Your task to perform on an android device: toggle translation in the chrome app Image 0: 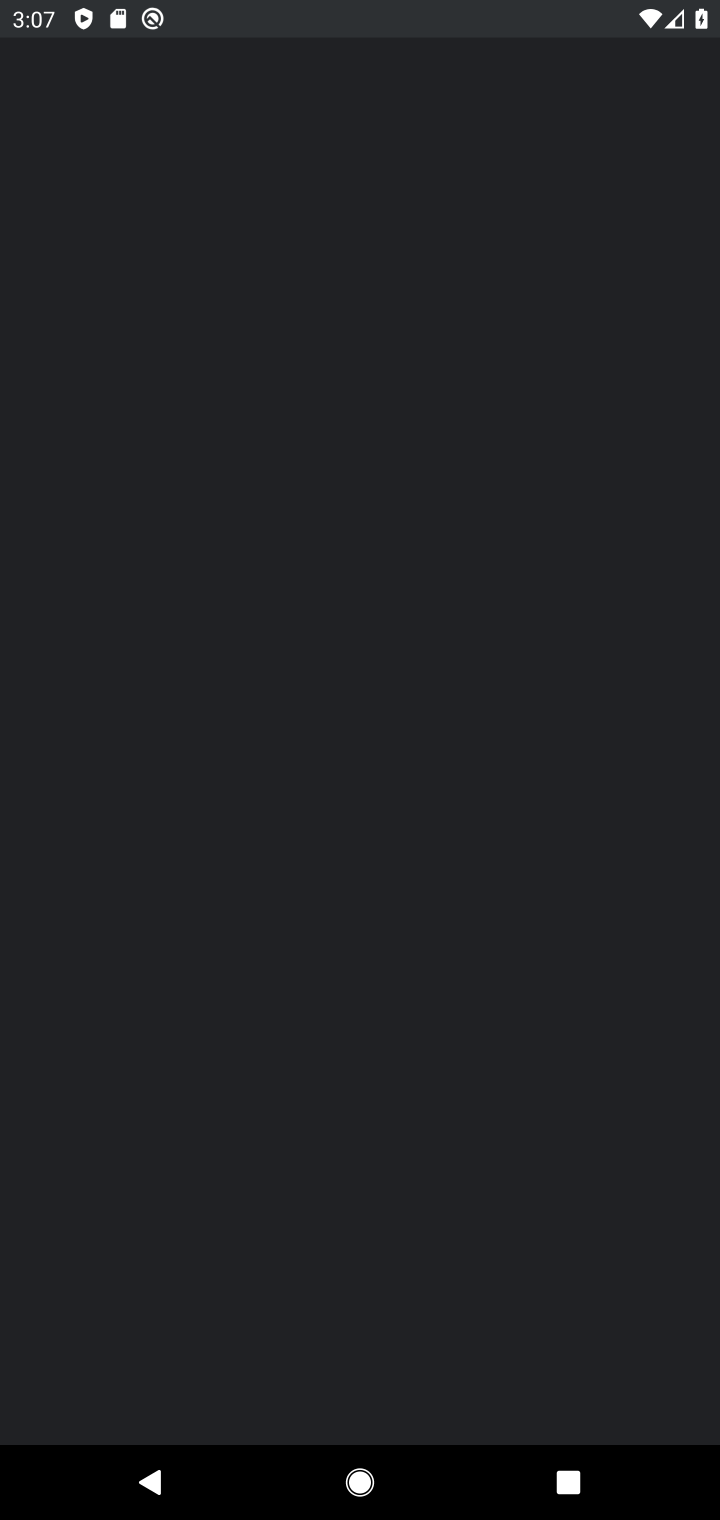
Step 0: press home button
Your task to perform on an android device: toggle translation in the chrome app Image 1: 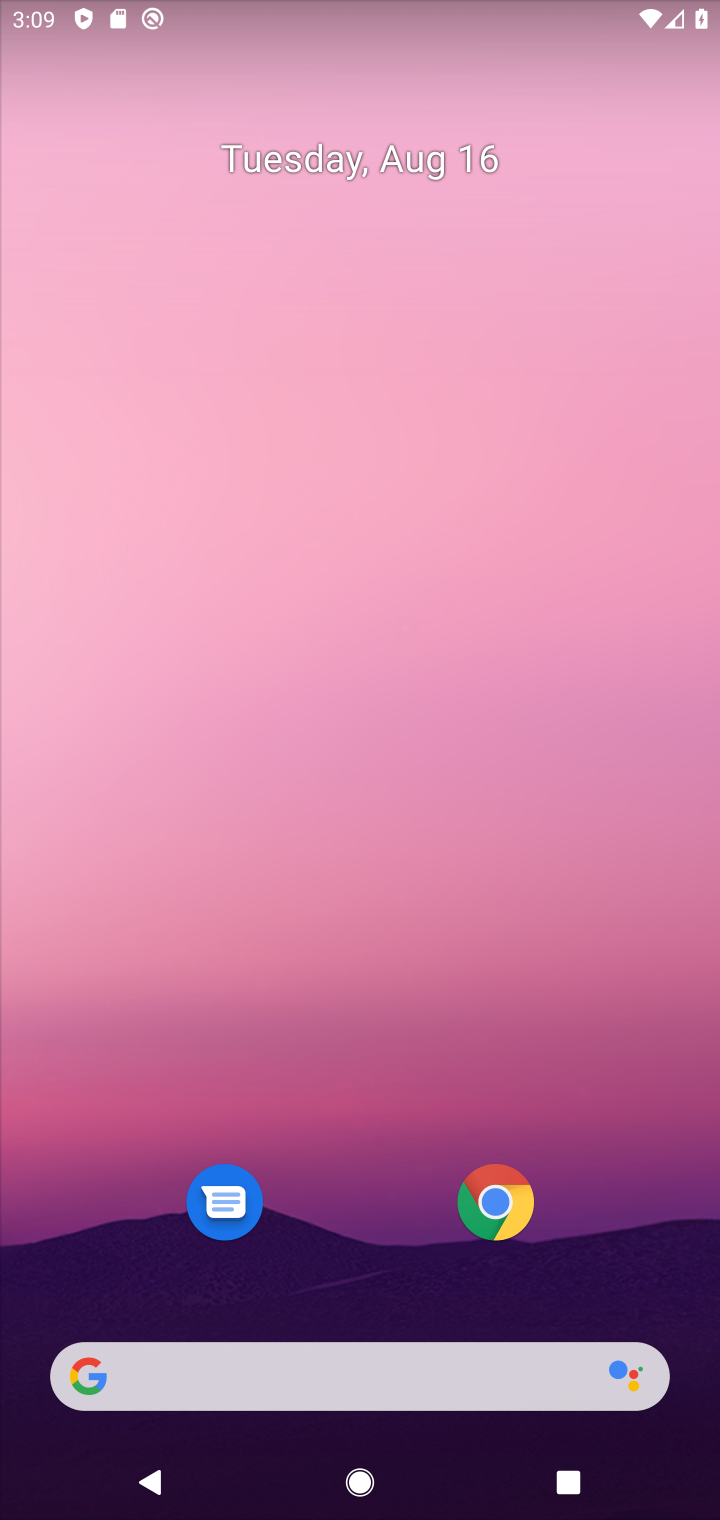
Step 1: drag from (414, 946) to (529, 147)
Your task to perform on an android device: toggle translation in the chrome app Image 2: 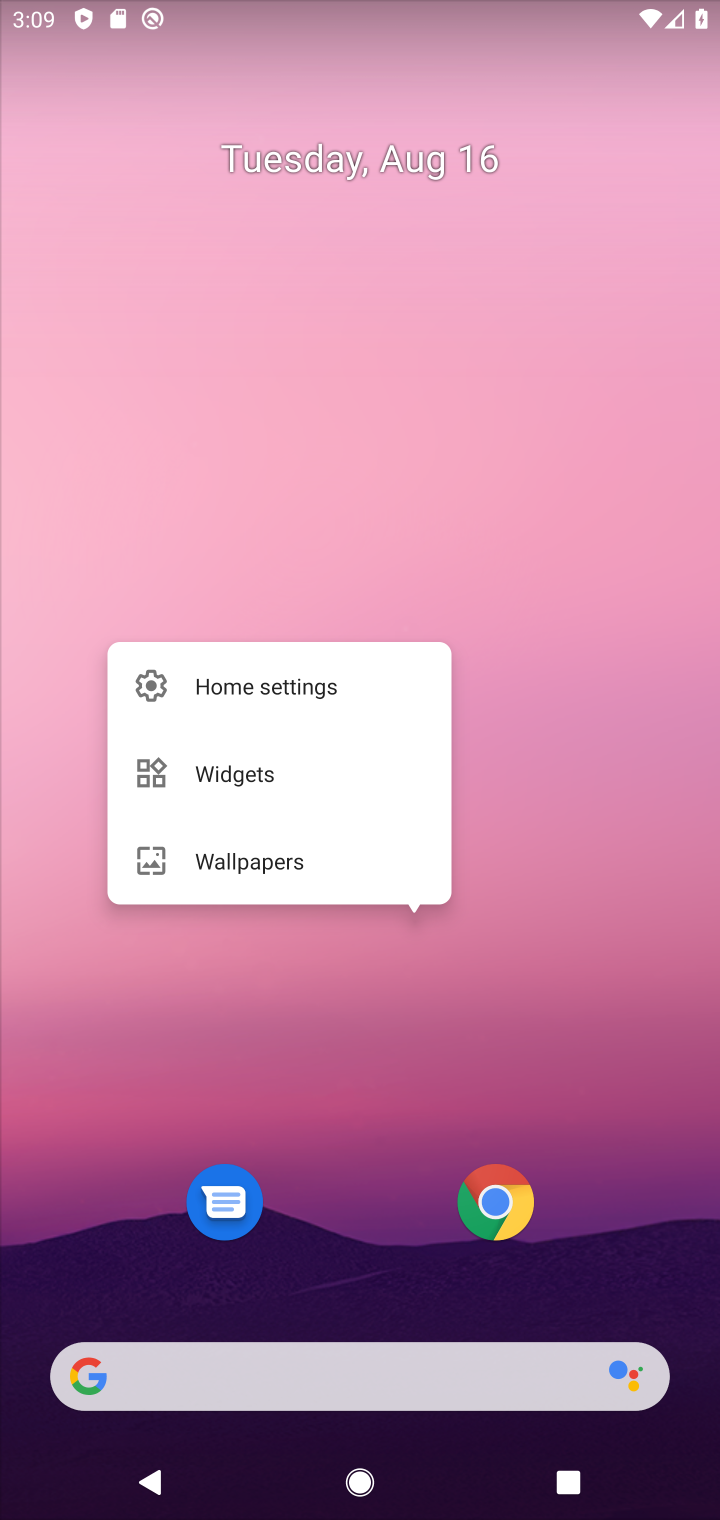
Step 2: click (509, 1061)
Your task to perform on an android device: toggle translation in the chrome app Image 3: 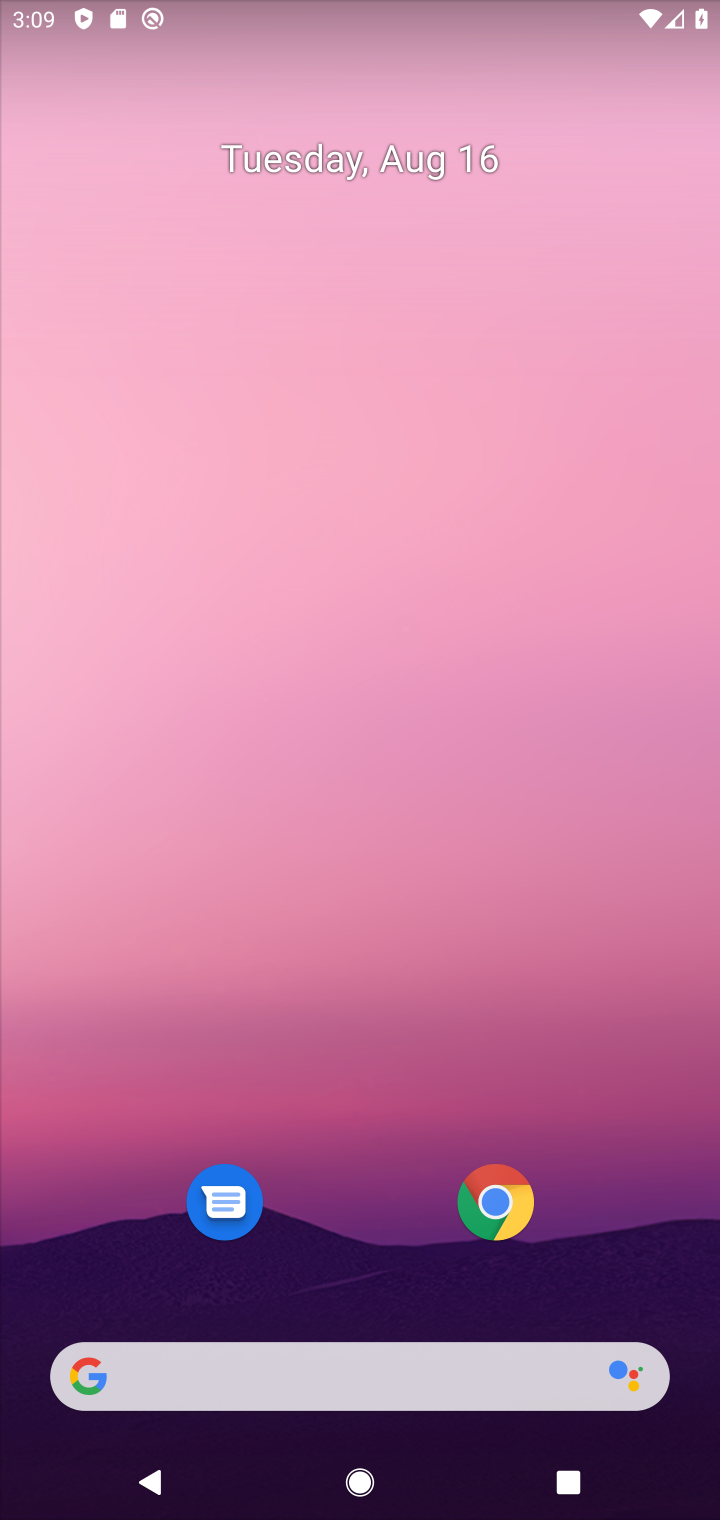
Step 3: drag from (375, 683) to (402, 2)
Your task to perform on an android device: toggle translation in the chrome app Image 4: 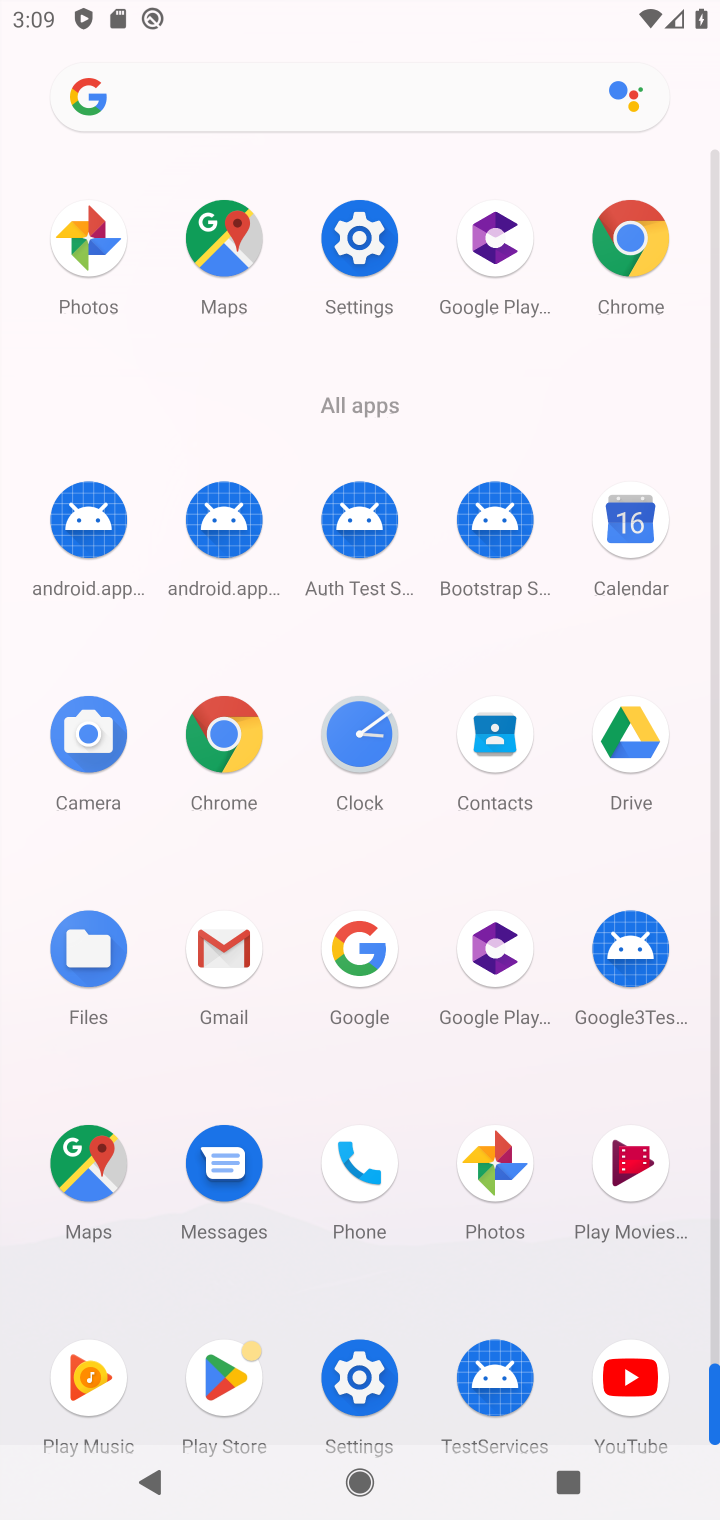
Step 4: click (223, 770)
Your task to perform on an android device: toggle translation in the chrome app Image 5: 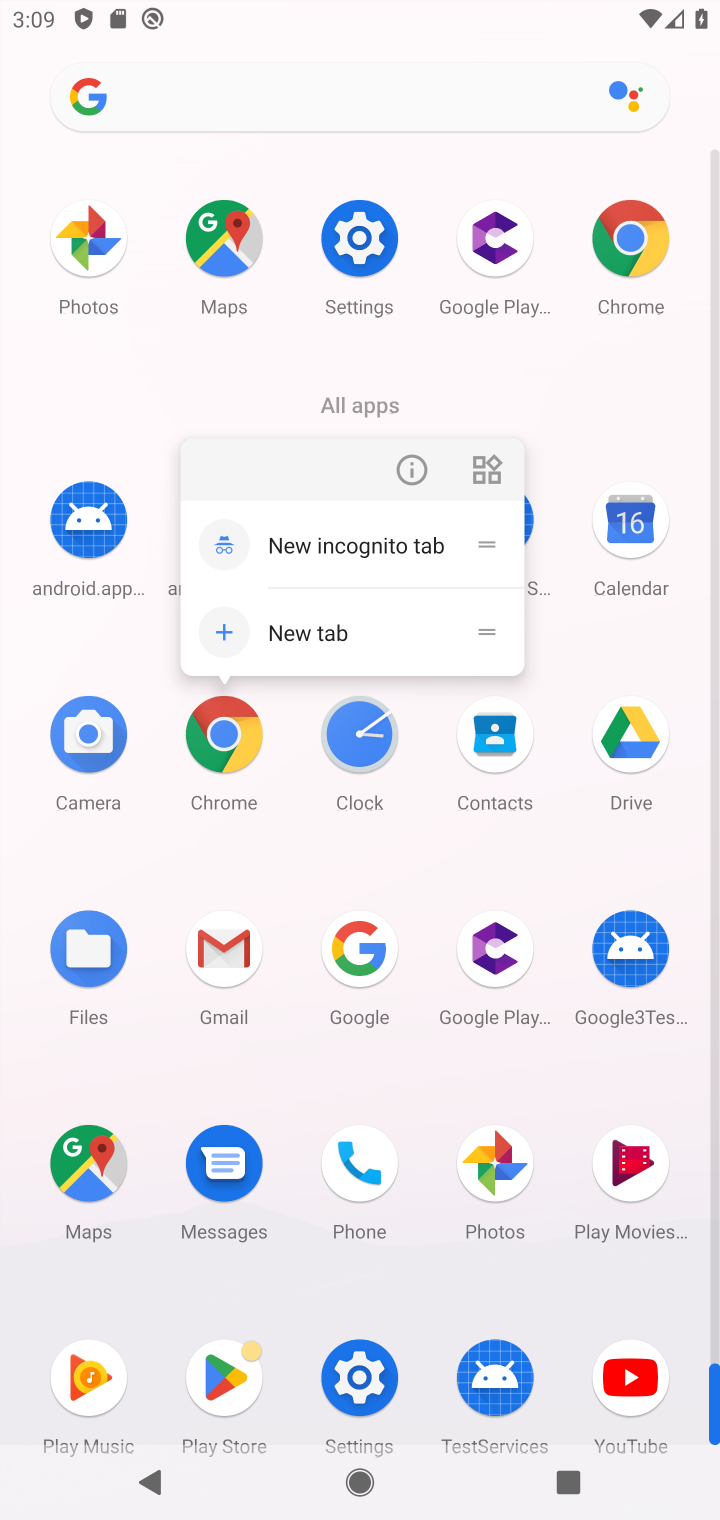
Step 5: click (246, 751)
Your task to perform on an android device: toggle translation in the chrome app Image 6: 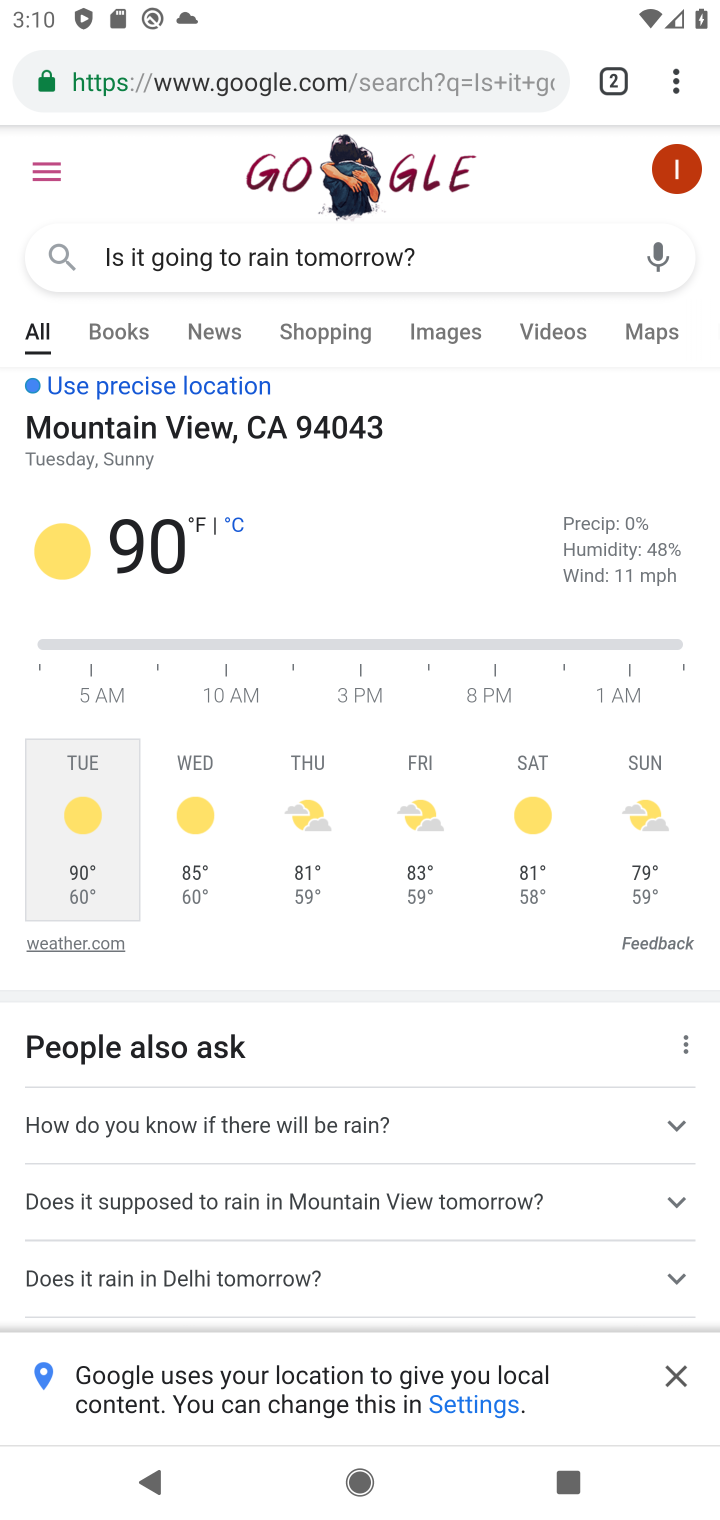
Step 6: click (679, 77)
Your task to perform on an android device: toggle translation in the chrome app Image 7: 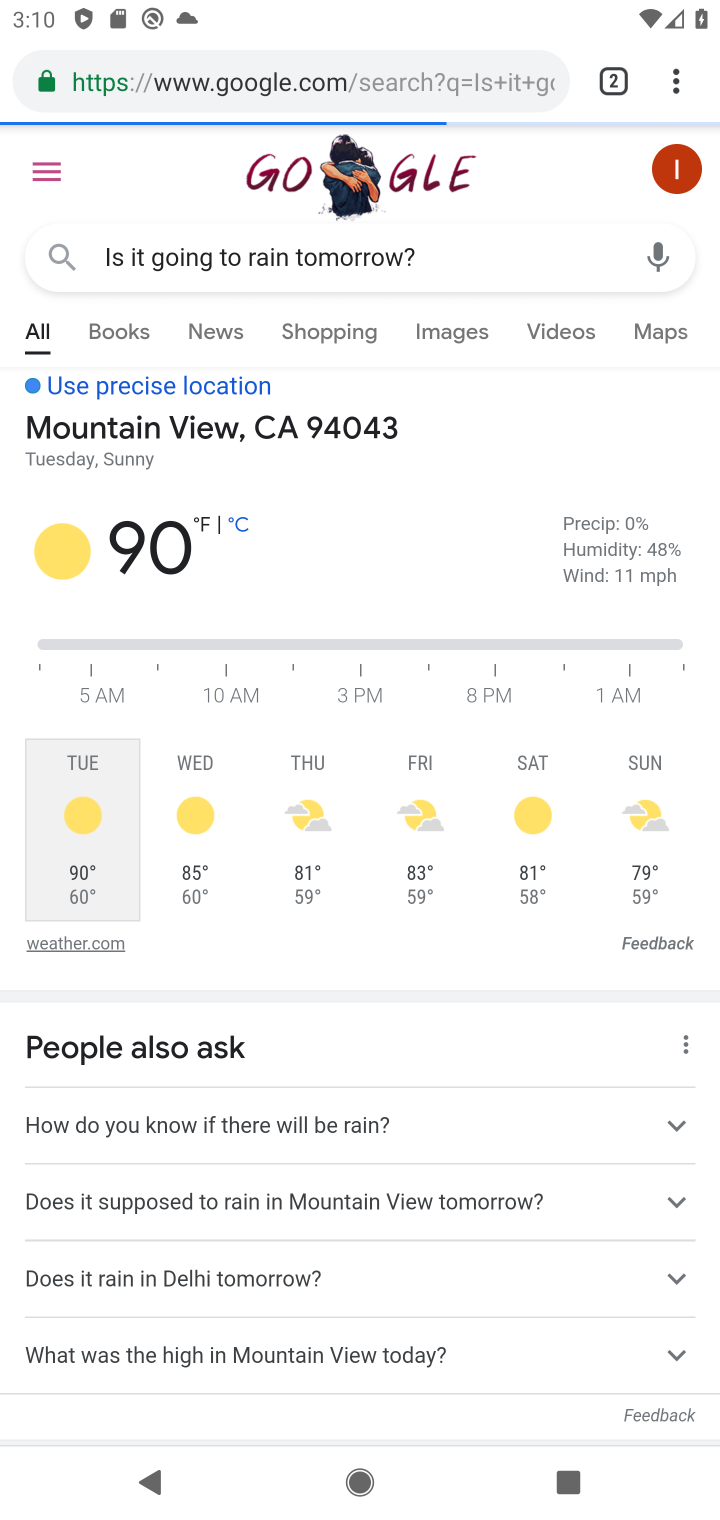
Step 7: click (665, 77)
Your task to perform on an android device: toggle translation in the chrome app Image 8: 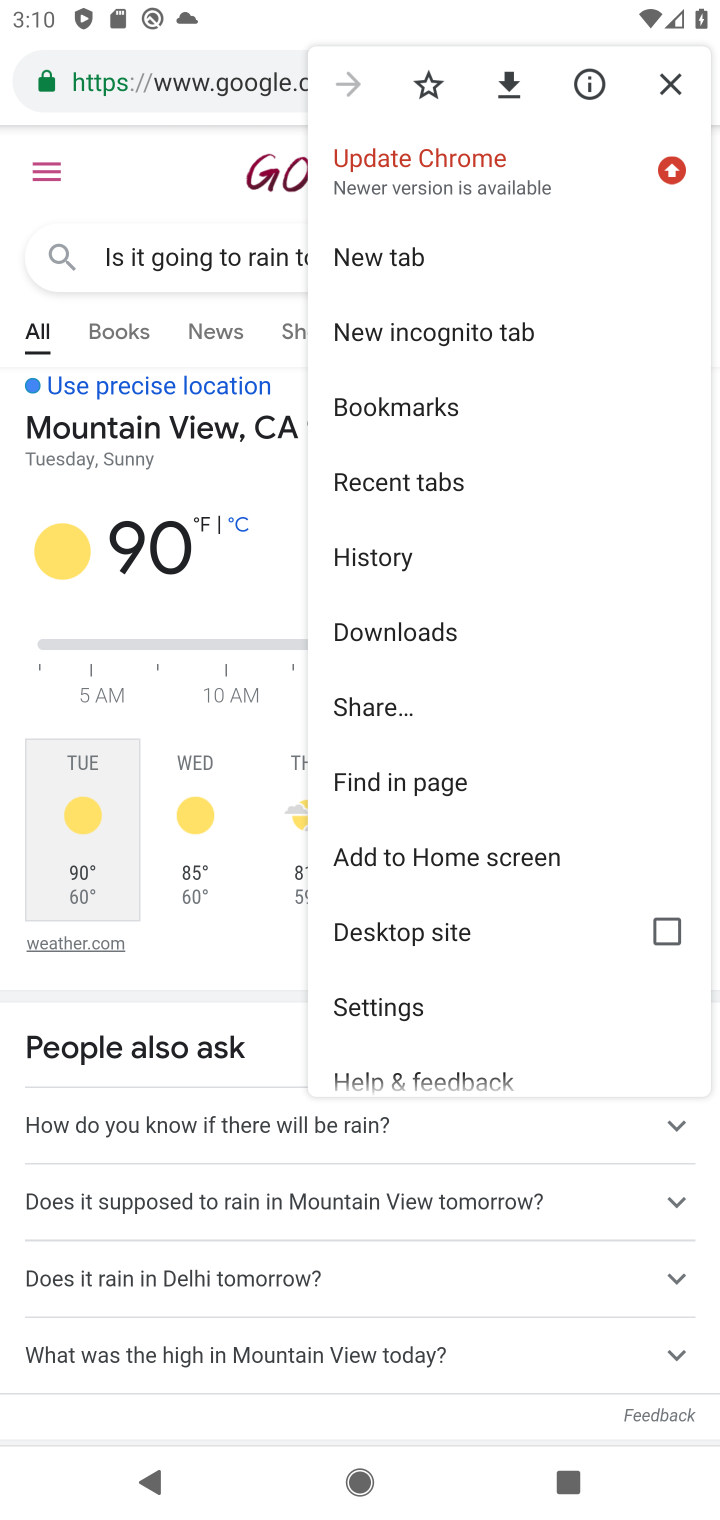
Step 8: click (460, 1002)
Your task to perform on an android device: toggle translation in the chrome app Image 9: 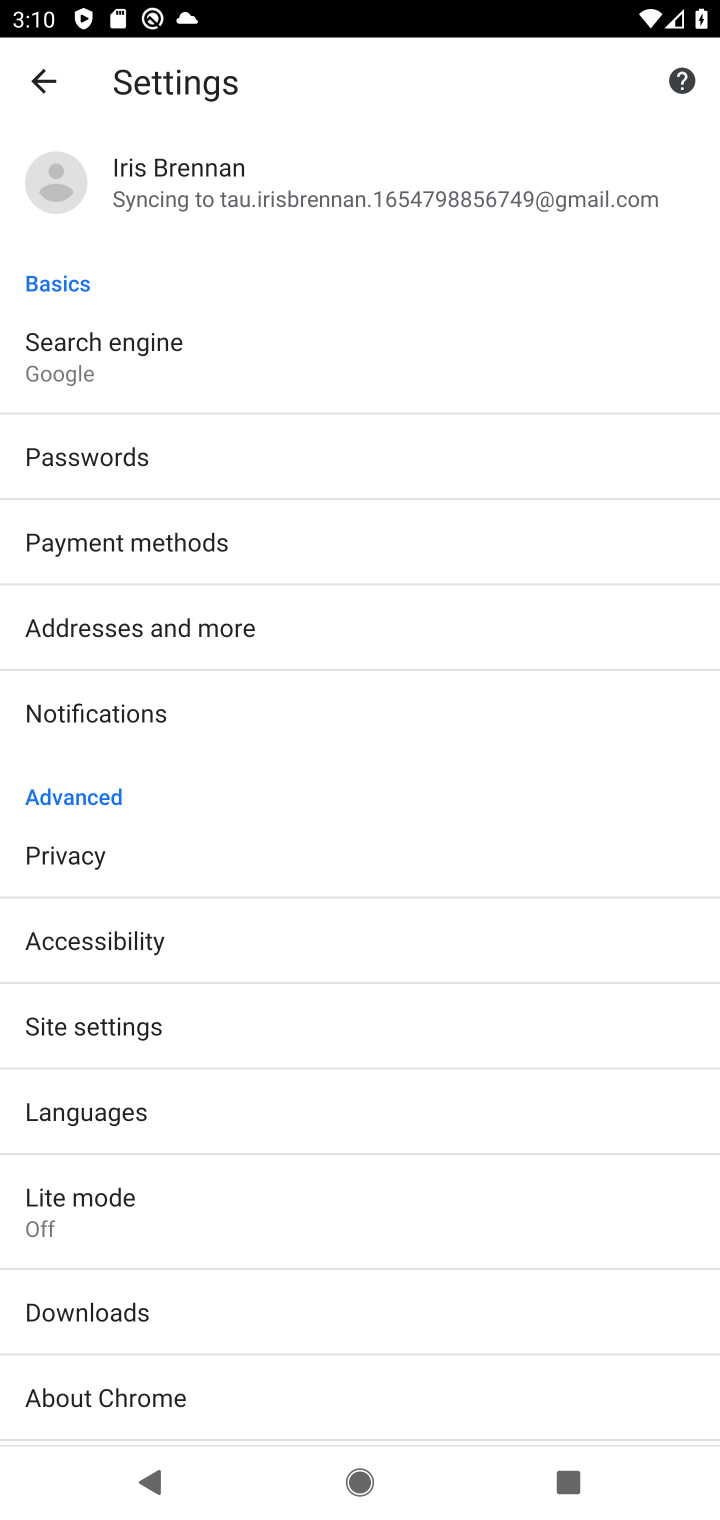
Step 9: click (123, 1117)
Your task to perform on an android device: toggle translation in the chrome app Image 10: 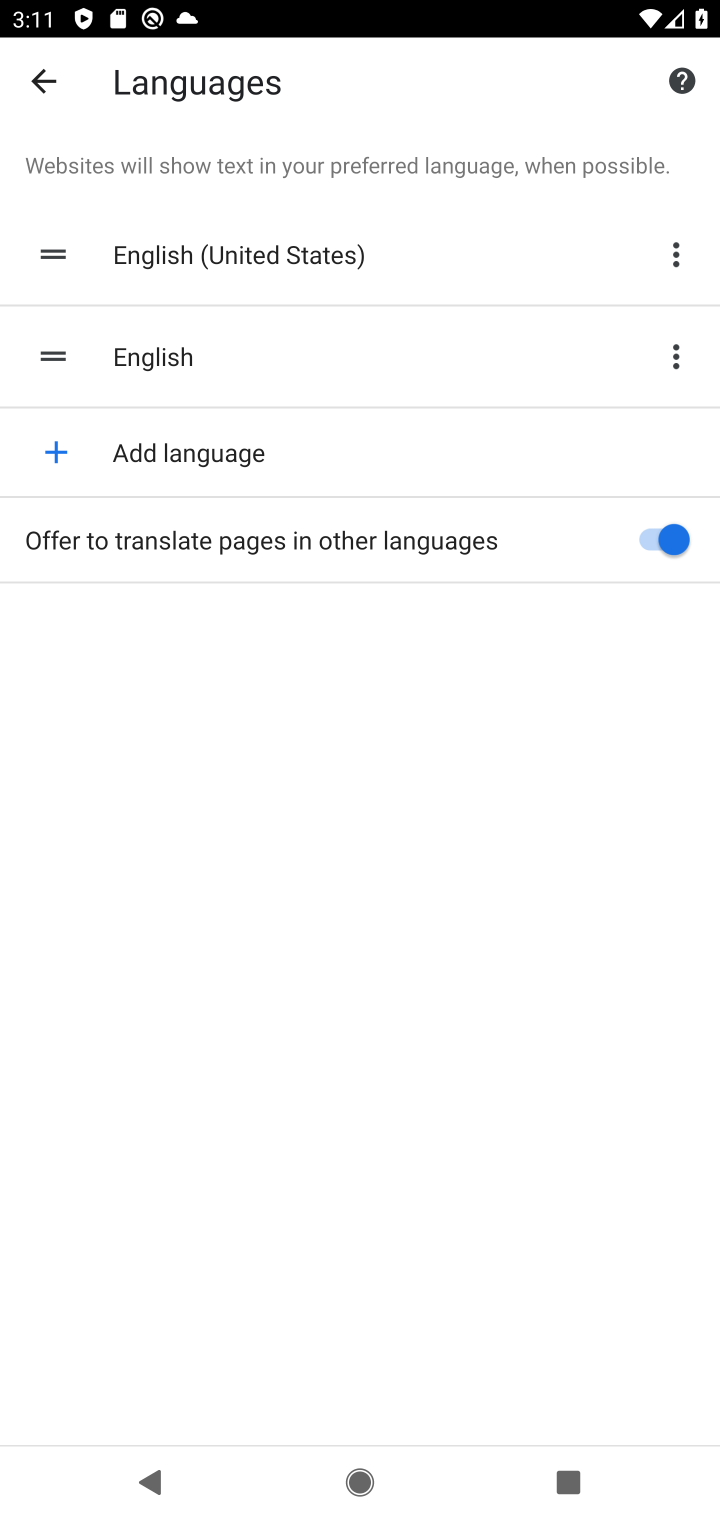
Step 10: click (644, 549)
Your task to perform on an android device: toggle translation in the chrome app Image 11: 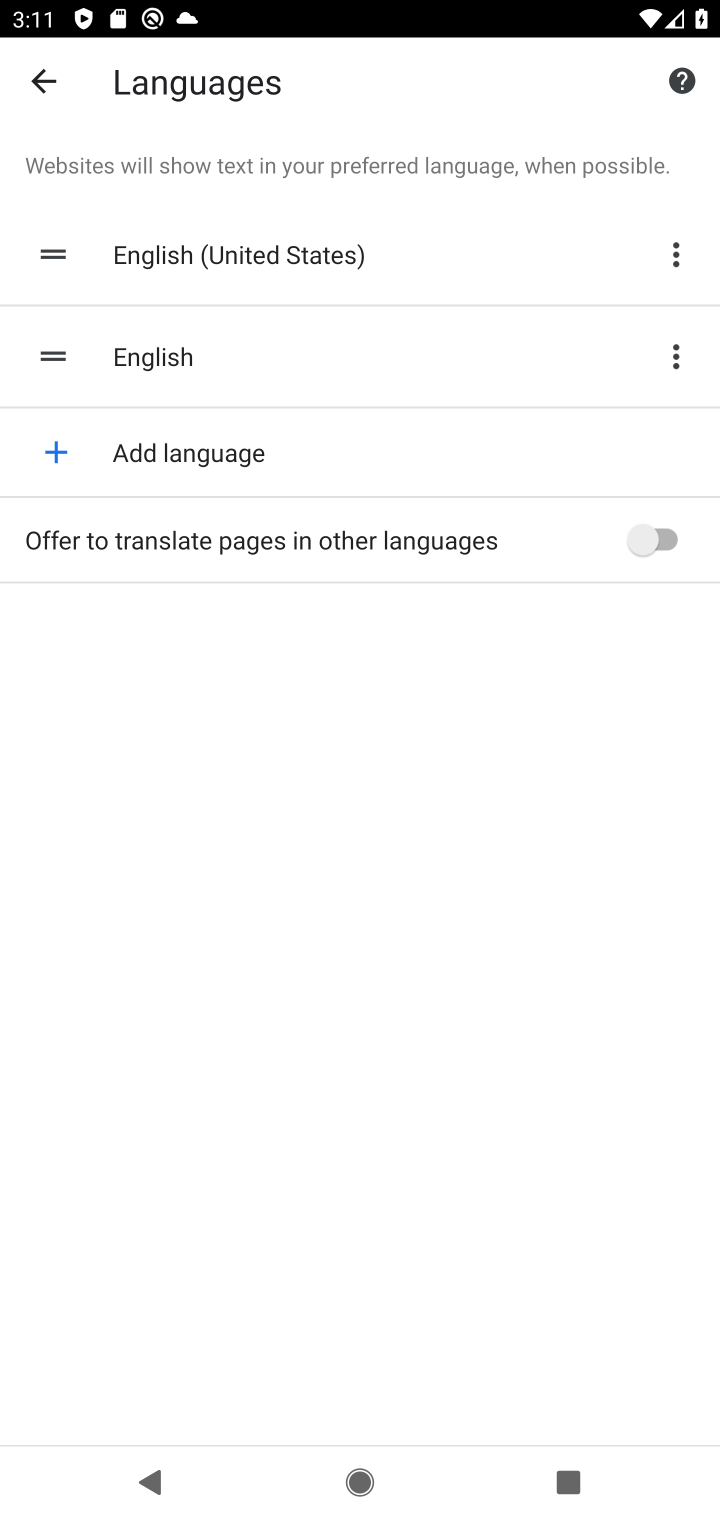
Step 11: task complete